Your task to perform on an android device: turn off improve location accuracy Image 0: 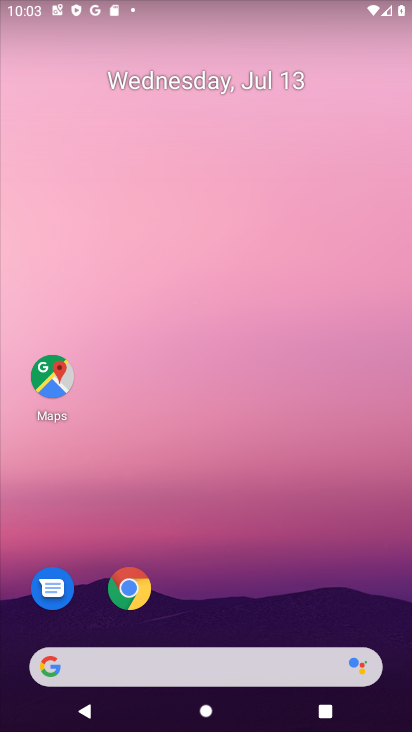
Step 0: drag from (211, 573) to (229, 80)
Your task to perform on an android device: turn off improve location accuracy Image 1: 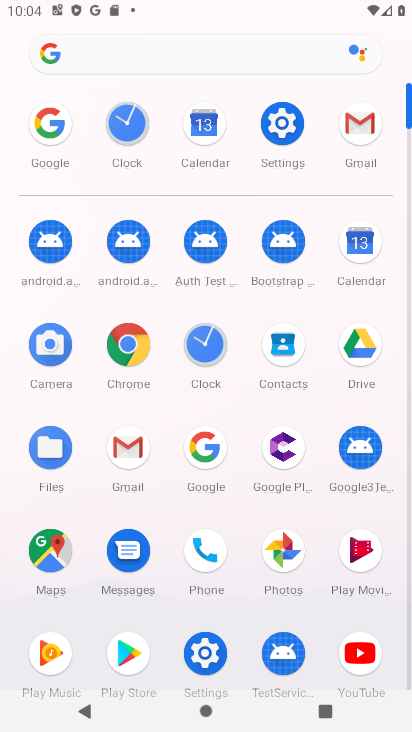
Step 1: click (276, 119)
Your task to perform on an android device: turn off improve location accuracy Image 2: 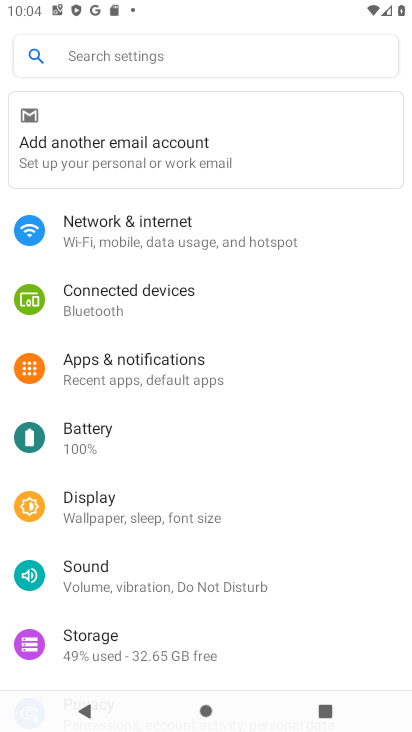
Step 2: drag from (153, 605) to (151, 161)
Your task to perform on an android device: turn off improve location accuracy Image 3: 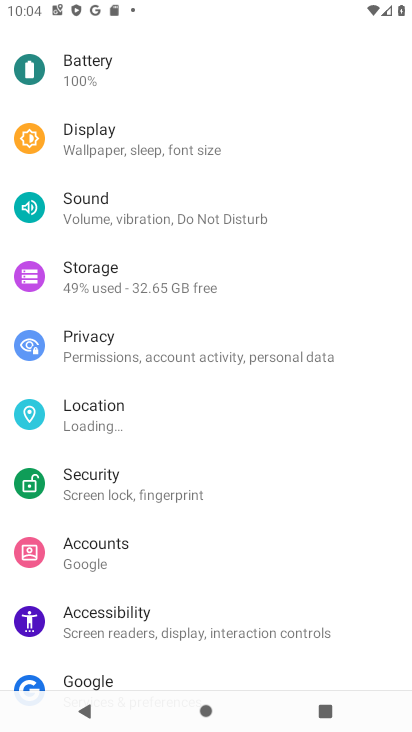
Step 3: click (119, 405)
Your task to perform on an android device: turn off improve location accuracy Image 4: 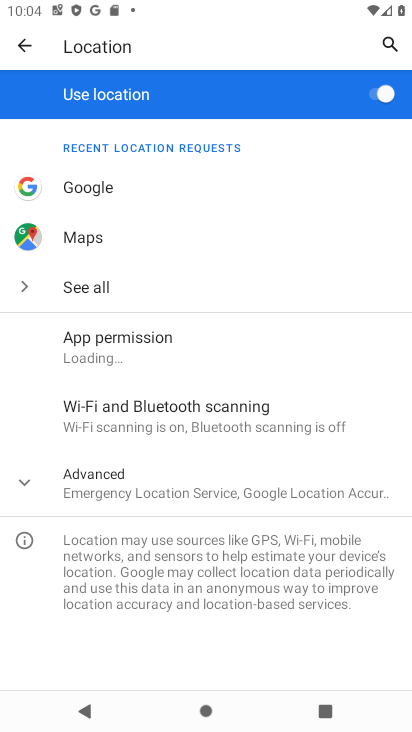
Step 4: click (137, 479)
Your task to perform on an android device: turn off improve location accuracy Image 5: 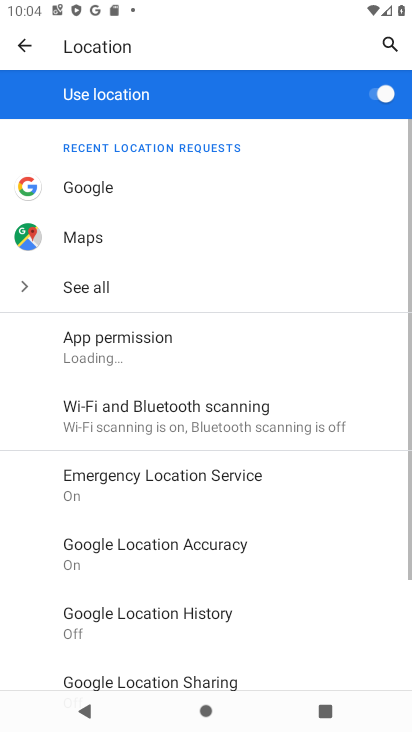
Step 5: click (206, 542)
Your task to perform on an android device: turn off improve location accuracy Image 6: 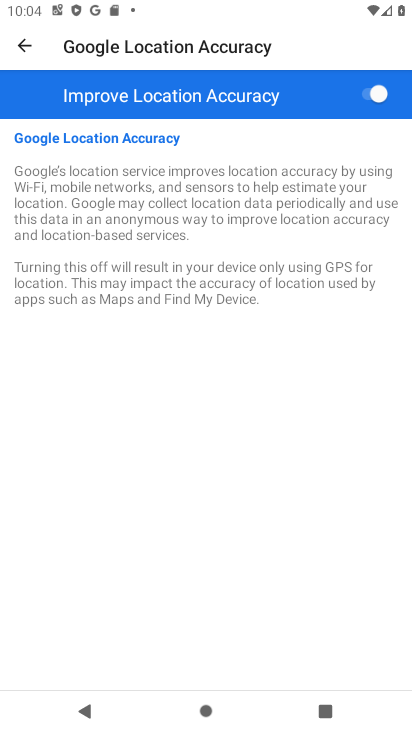
Step 6: click (375, 96)
Your task to perform on an android device: turn off improve location accuracy Image 7: 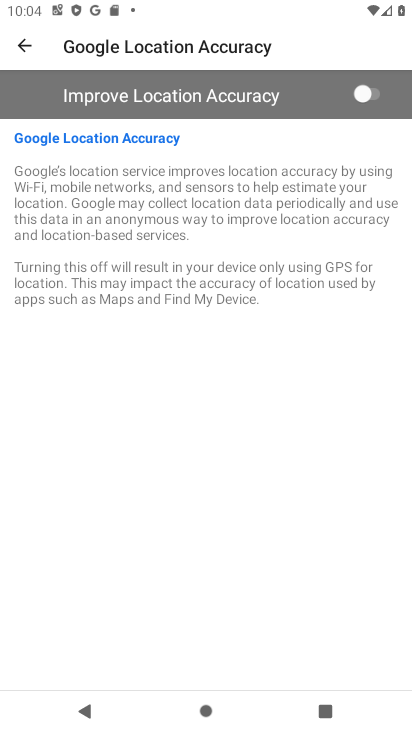
Step 7: task complete